Your task to perform on an android device: check battery use Image 0: 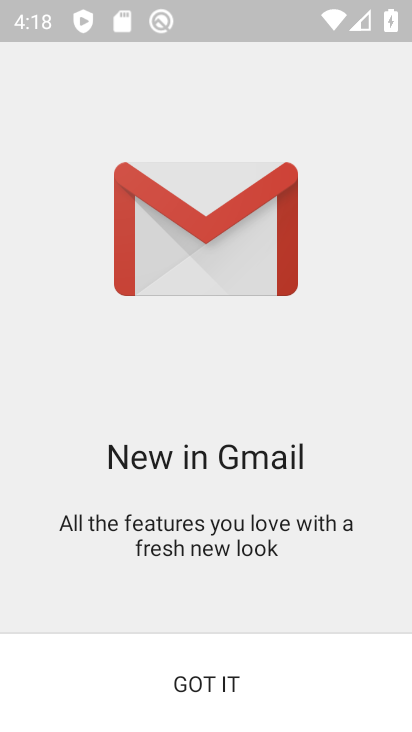
Step 0: press home button
Your task to perform on an android device: check battery use Image 1: 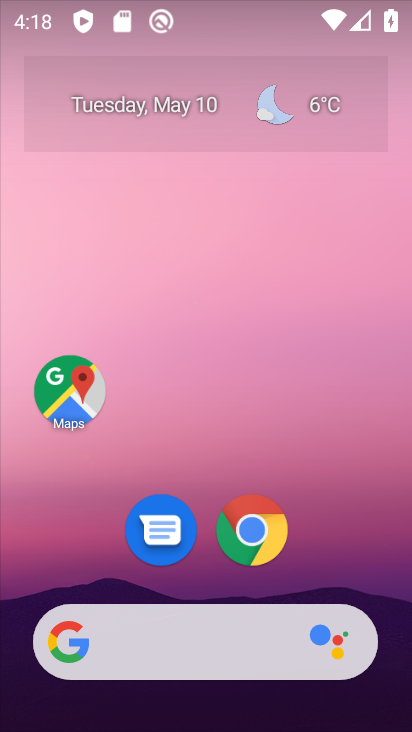
Step 1: drag from (278, 585) to (308, 9)
Your task to perform on an android device: check battery use Image 2: 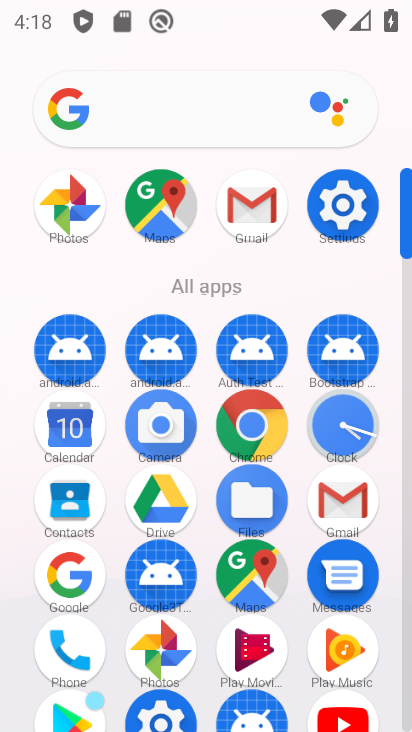
Step 2: click (343, 188)
Your task to perform on an android device: check battery use Image 3: 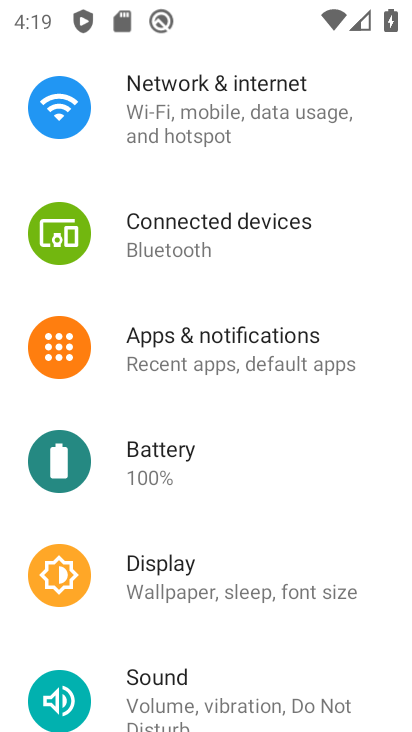
Step 3: click (184, 465)
Your task to perform on an android device: check battery use Image 4: 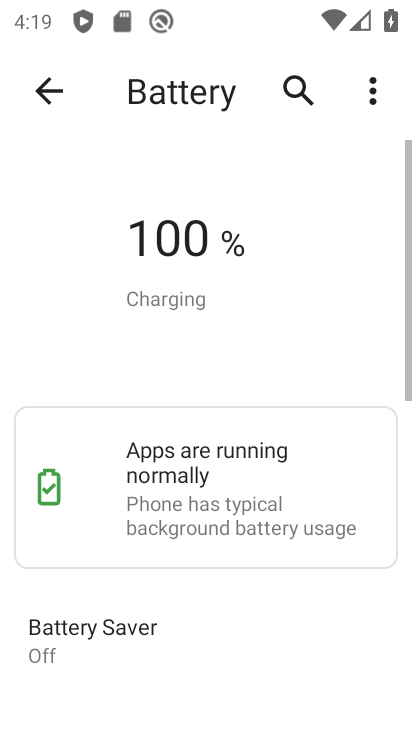
Step 4: click (403, 87)
Your task to perform on an android device: check battery use Image 5: 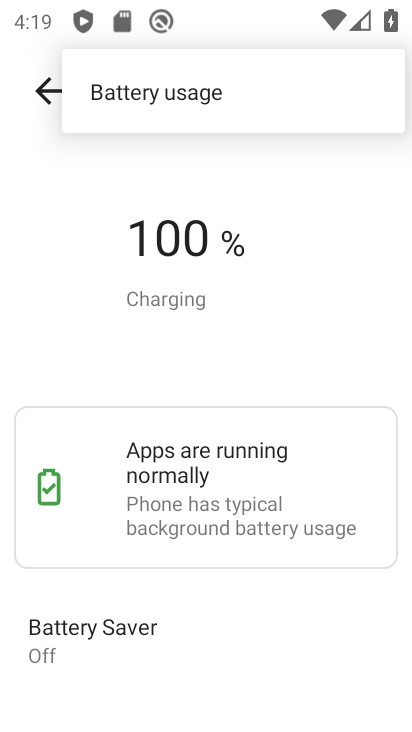
Step 5: click (302, 92)
Your task to perform on an android device: check battery use Image 6: 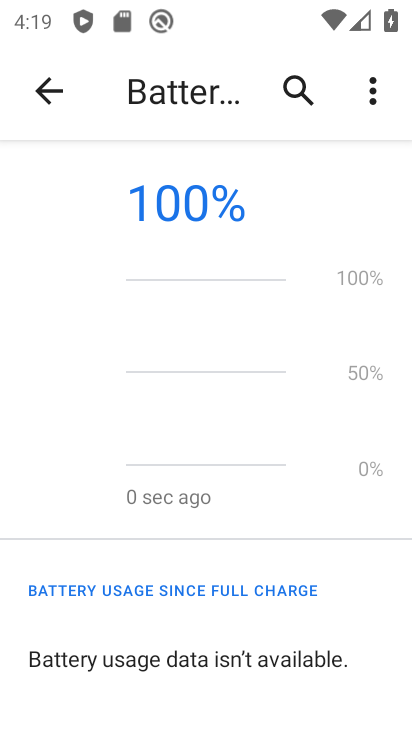
Step 6: task complete